Your task to perform on an android device: Open Maps and search for coffee Image 0: 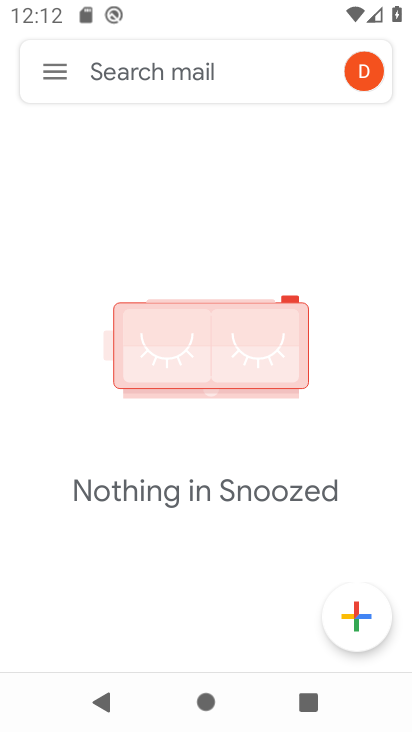
Step 0: press home button
Your task to perform on an android device: Open Maps and search for coffee Image 1: 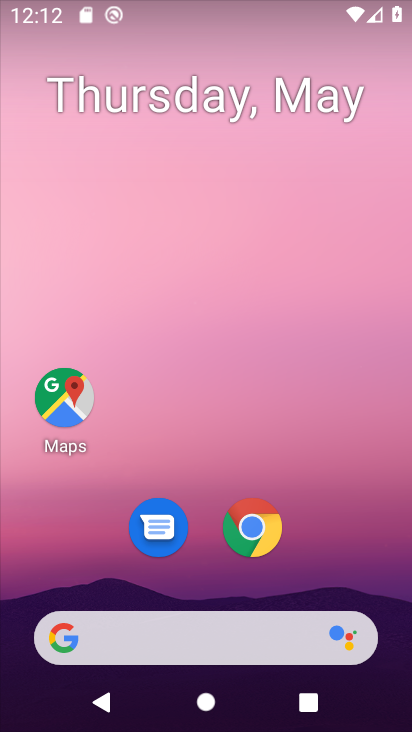
Step 1: click (51, 411)
Your task to perform on an android device: Open Maps and search for coffee Image 2: 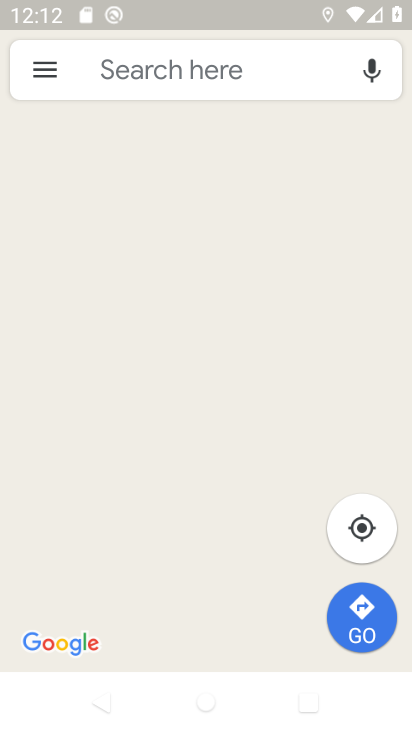
Step 2: click (199, 75)
Your task to perform on an android device: Open Maps and search for coffee Image 3: 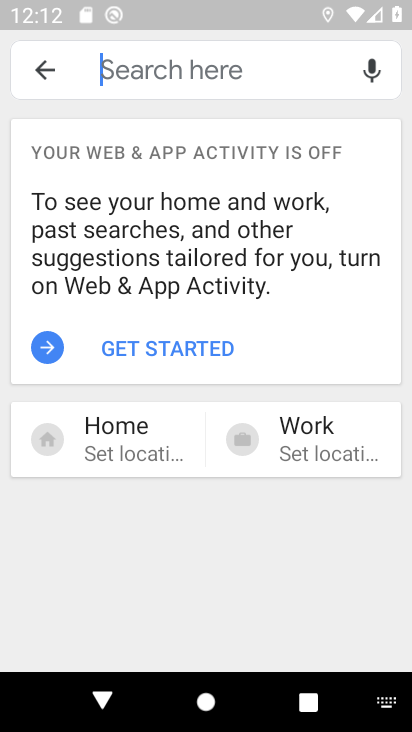
Step 3: type "coffee"
Your task to perform on an android device: Open Maps and search for coffee Image 4: 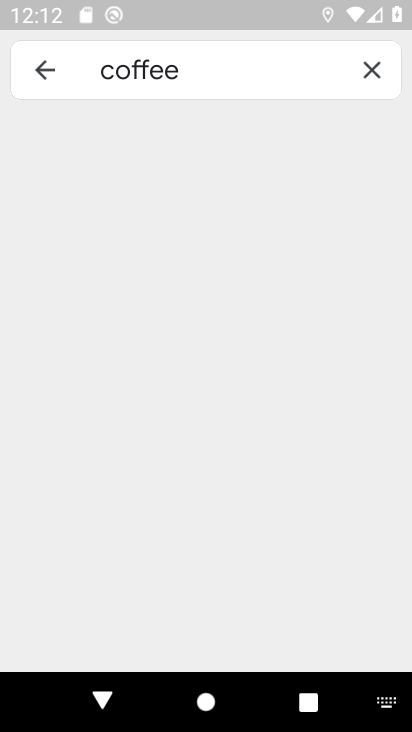
Step 4: task complete